Your task to perform on an android device: Search for pizza restaurants on Maps Image 0: 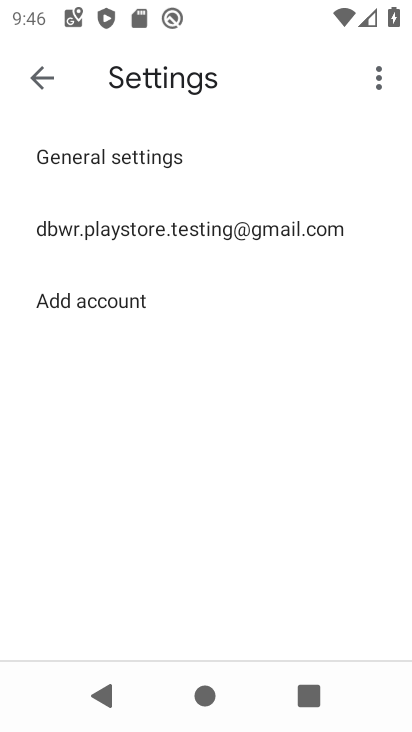
Step 0: press home button
Your task to perform on an android device: Search for pizza restaurants on Maps Image 1: 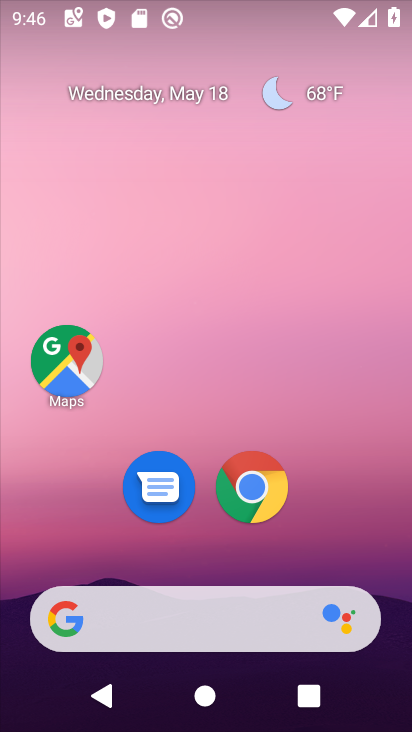
Step 1: drag from (344, 606) to (349, 237)
Your task to perform on an android device: Search for pizza restaurants on Maps Image 2: 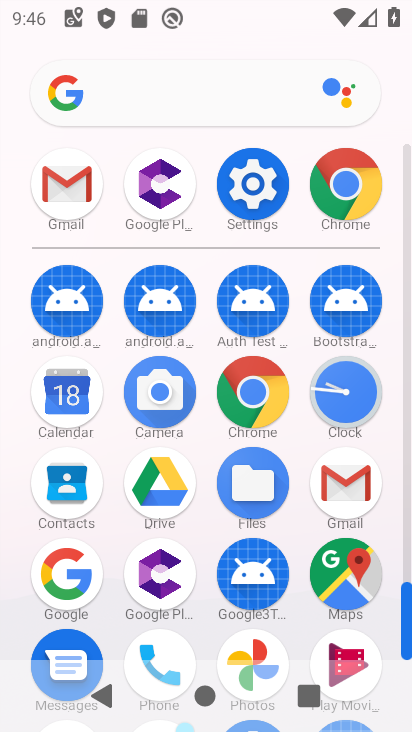
Step 2: click (334, 494)
Your task to perform on an android device: Search for pizza restaurants on Maps Image 3: 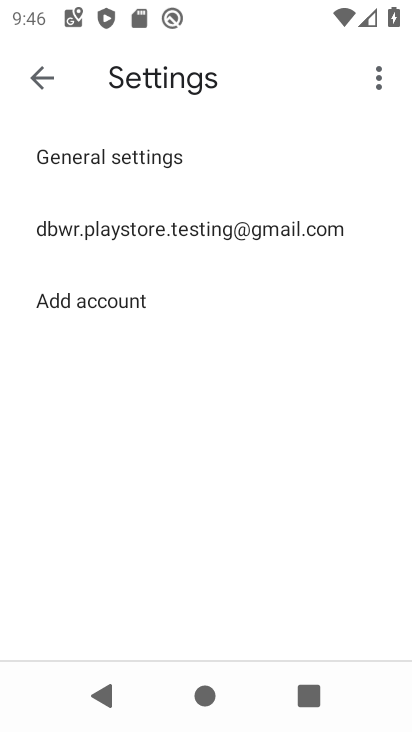
Step 3: press home button
Your task to perform on an android device: Search for pizza restaurants on Maps Image 4: 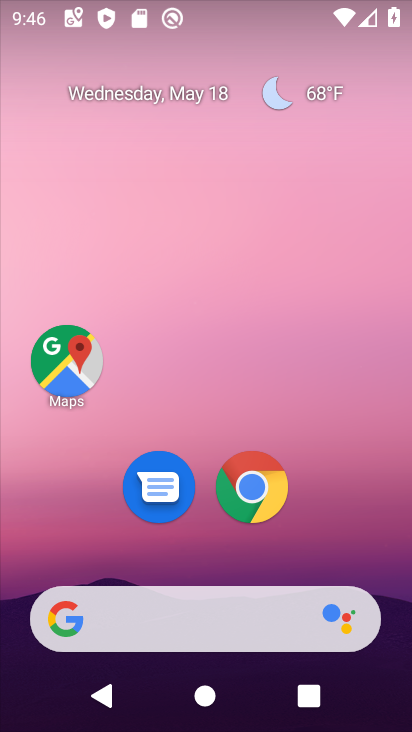
Step 4: drag from (333, 514) to (333, 143)
Your task to perform on an android device: Search for pizza restaurants on Maps Image 5: 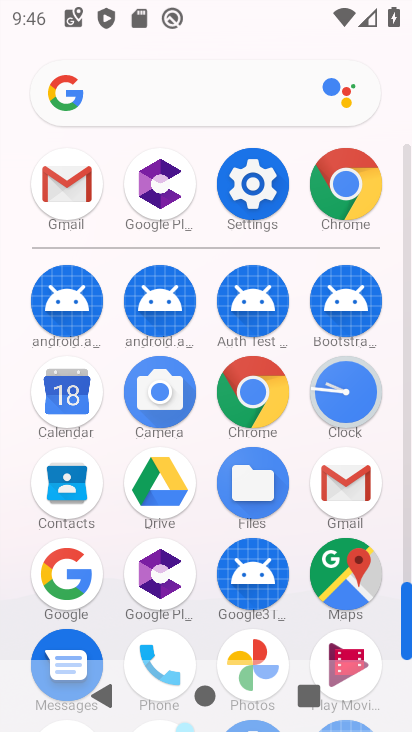
Step 5: click (325, 570)
Your task to perform on an android device: Search for pizza restaurants on Maps Image 6: 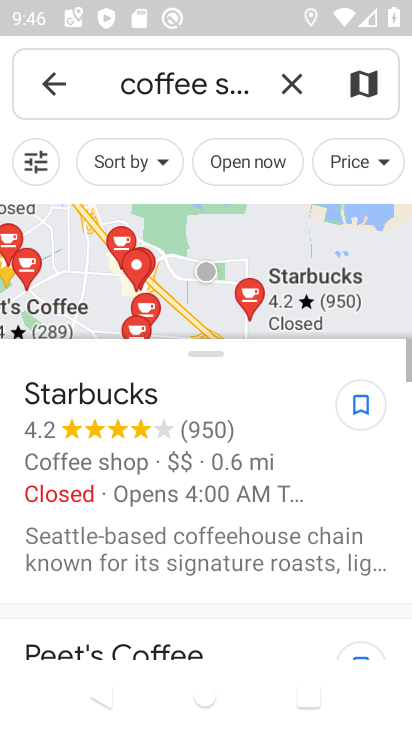
Step 6: click (283, 86)
Your task to perform on an android device: Search for pizza restaurants on Maps Image 7: 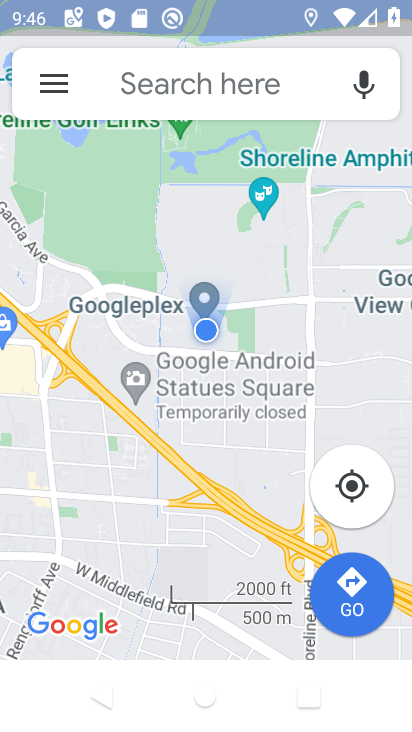
Step 7: click (161, 83)
Your task to perform on an android device: Search for pizza restaurants on Maps Image 8: 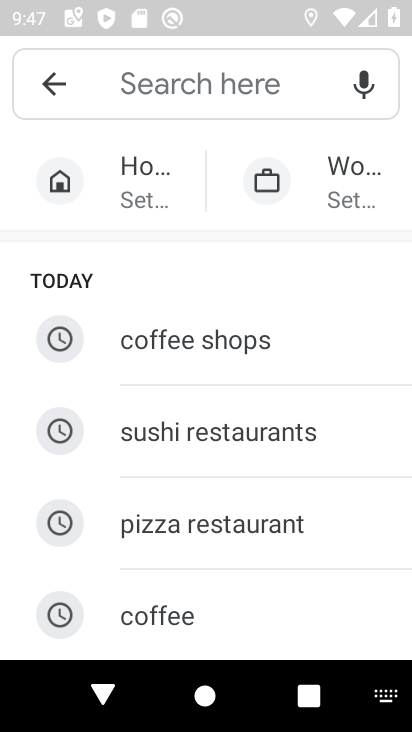
Step 8: click (249, 524)
Your task to perform on an android device: Search for pizza restaurants on Maps Image 9: 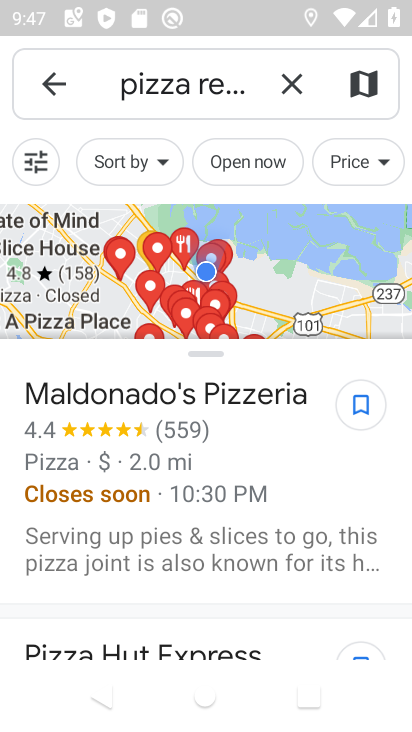
Step 9: task complete